Your task to perform on an android device: turn off notifications in google photos Image 0: 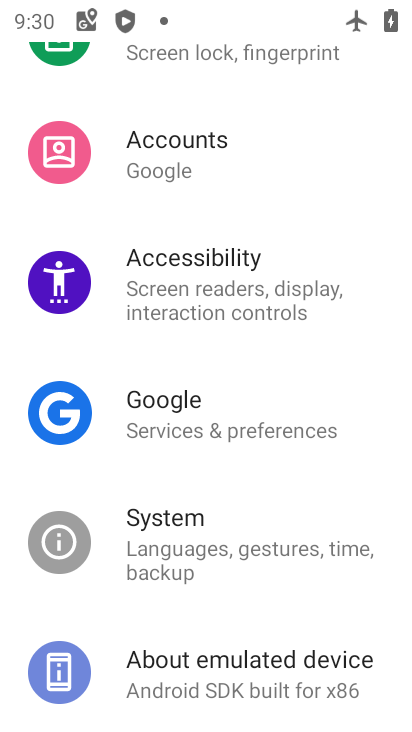
Step 0: press home button
Your task to perform on an android device: turn off notifications in google photos Image 1: 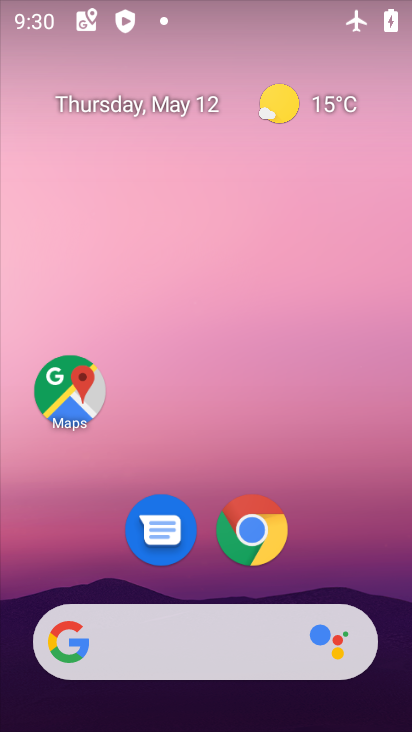
Step 1: drag from (220, 710) to (132, 97)
Your task to perform on an android device: turn off notifications in google photos Image 2: 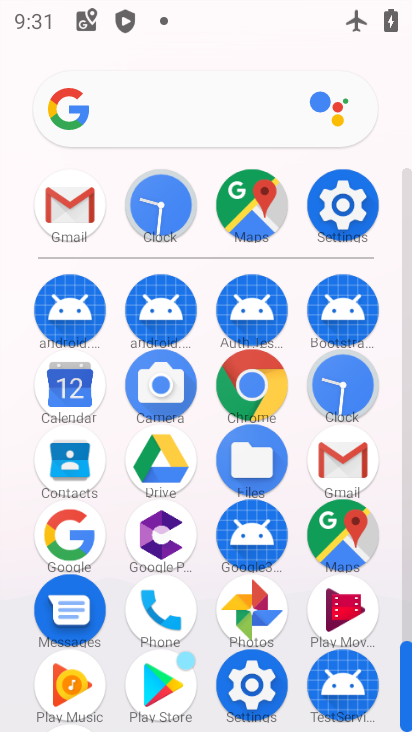
Step 2: click (252, 601)
Your task to perform on an android device: turn off notifications in google photos Image 3: 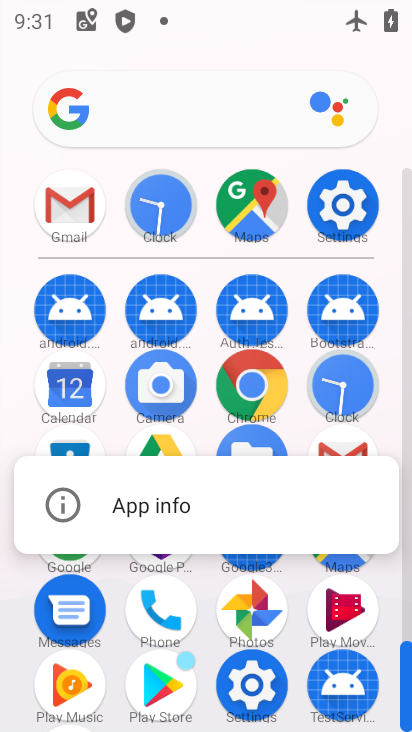
Step 3: click (227, 517)
Your task to perform on an android device: turn off notifications in google photos Image 4: 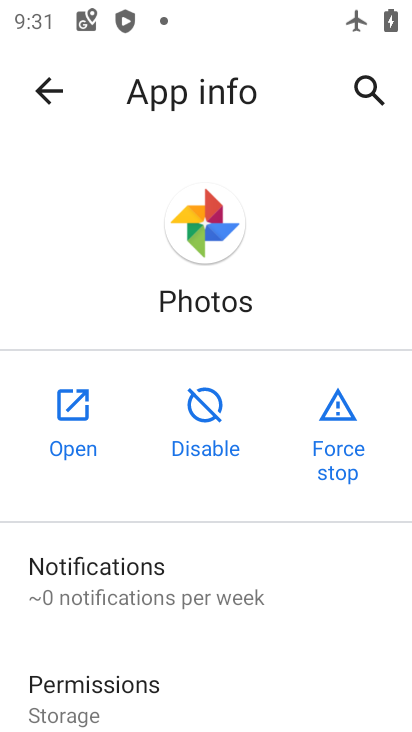
Step 4: click (213, 576)
Your task to perform on an android device: turn off notifications in google photos Image 5: 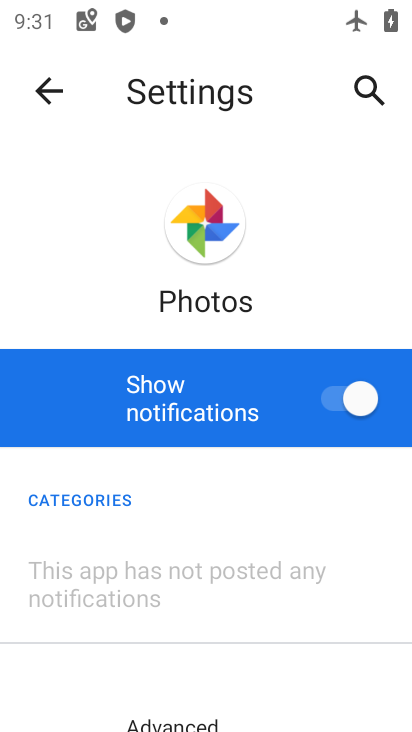
Step 5: click (367, 401)
Your task to perform on an android device: turn off notifications in google photos Image 6: 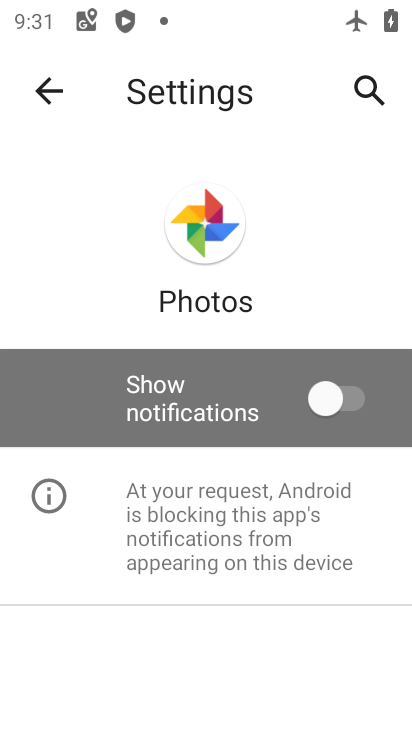
Step 6: task complete